Your task to perform on an android device: Open settings on Google Maps Image 0: 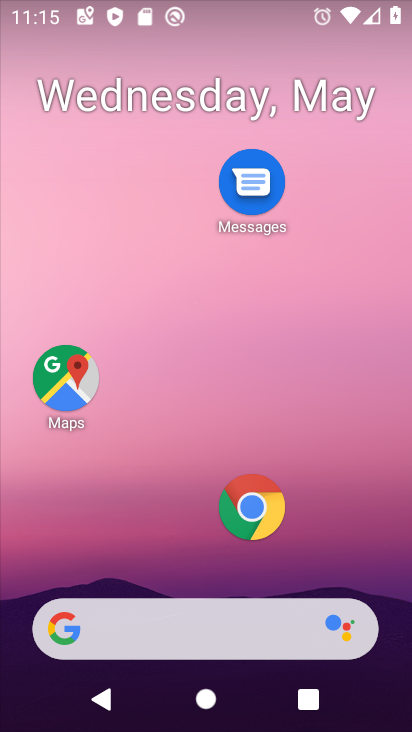
Step 0: press home button
Your task to perform on an android device: Open settings on Google Maps Image 1: 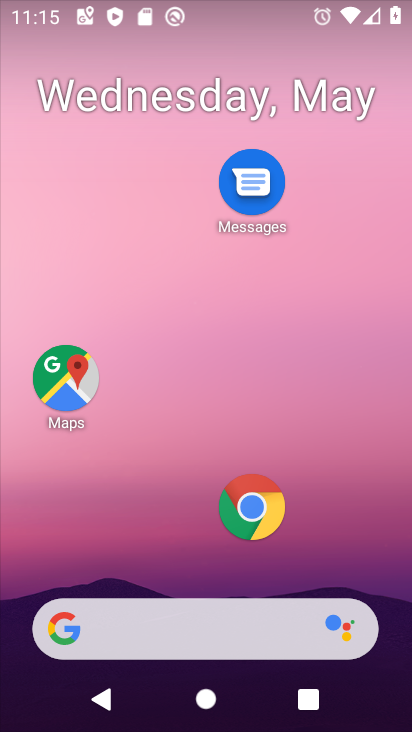
Step 1: click (74, 373)
Your task to perform on an android device: Open settings on Google Maps Image 2: 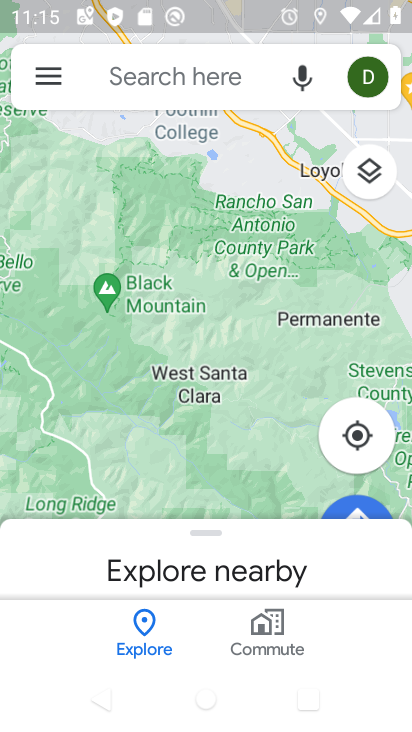
Step 2: click (45, 68)
Your task to perform on an android device: Open settings on Google Maps Image 3: 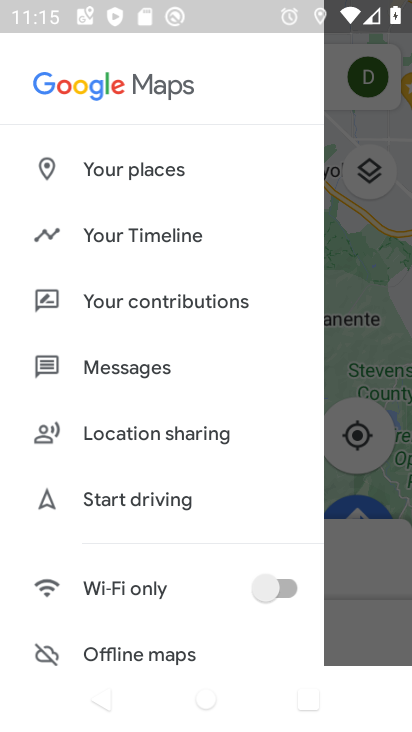
Step 3: drag from (119, 585) to (180, 150)
Your task to perform on an android device: Open settings on Google Maps Image 4: 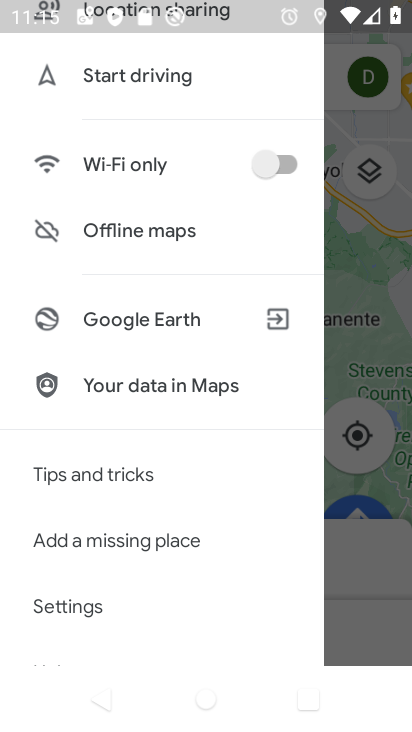
Step 4: click (104, 610)
Your task to perform on an android device: Open settings on Google Maps Image 5: 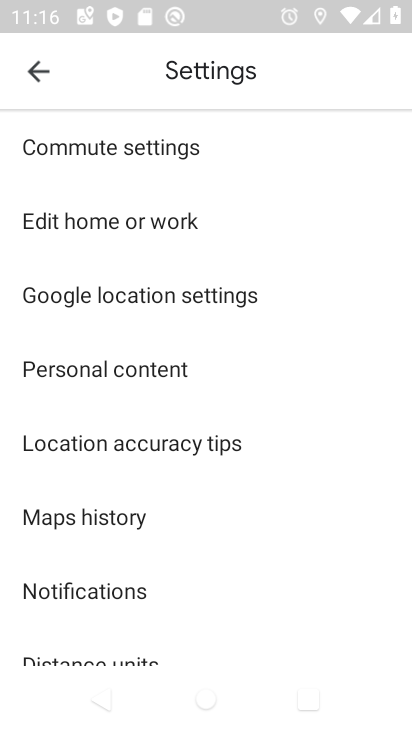
Step 5: task complete